Your task to perform on an android device: turn off location Image 0: 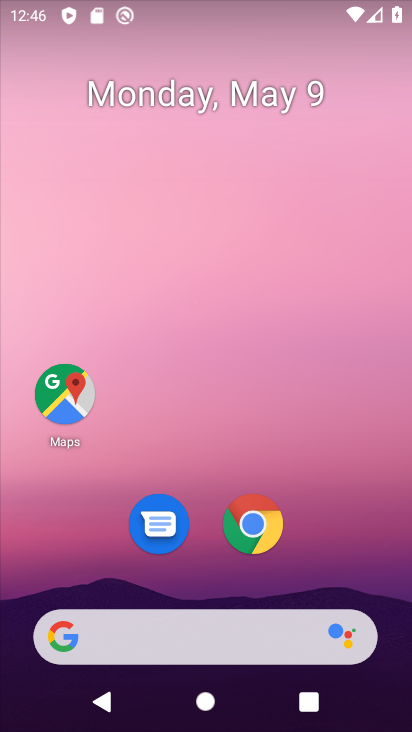
Step 0: drag from (356, 511) to (307, 25)
Your task to perform on an android device: turn off location Image 1: 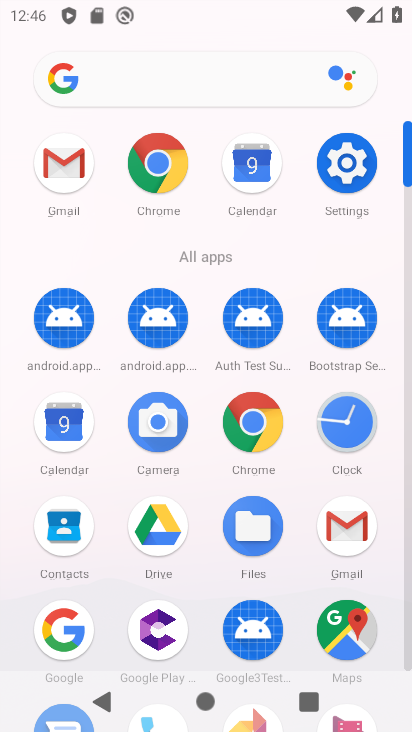
Step 1: click (346, 158)
Your task to perform on an android device: turn off location Image 2: 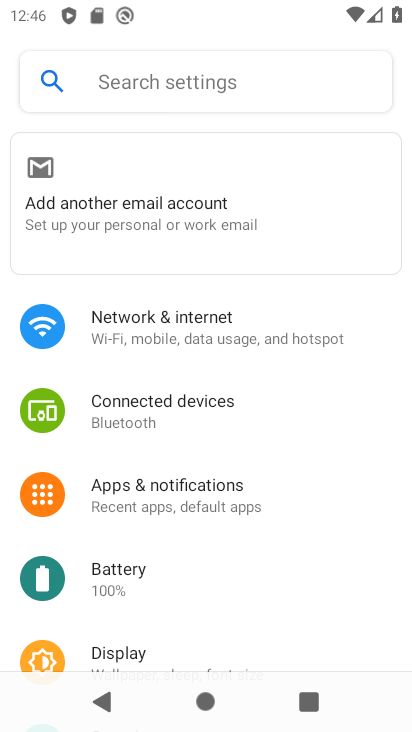
Step 2: drag from (235, 563) to (336, 10)
Your task to perform on an android device: turn off location Image 3: 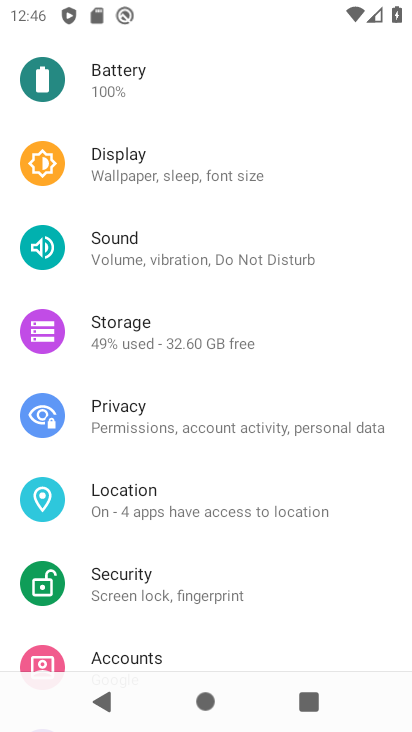
Step 3: click (264, 510)
Your task to perform on an android device: turn off location Image 4: 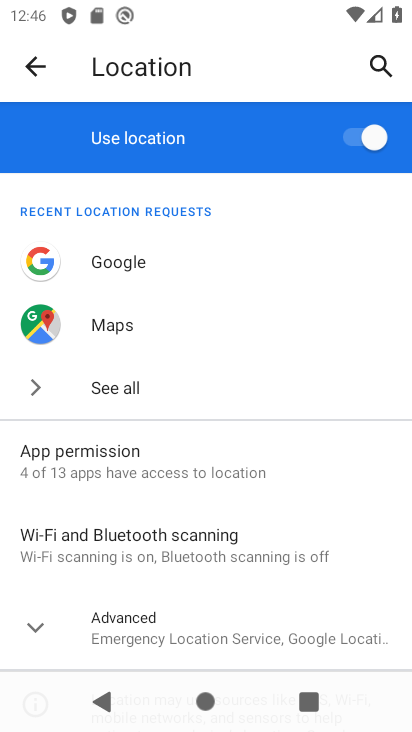
Step 4: click (356, 136)
Your task to perform on an android device: turn off location Image 5: 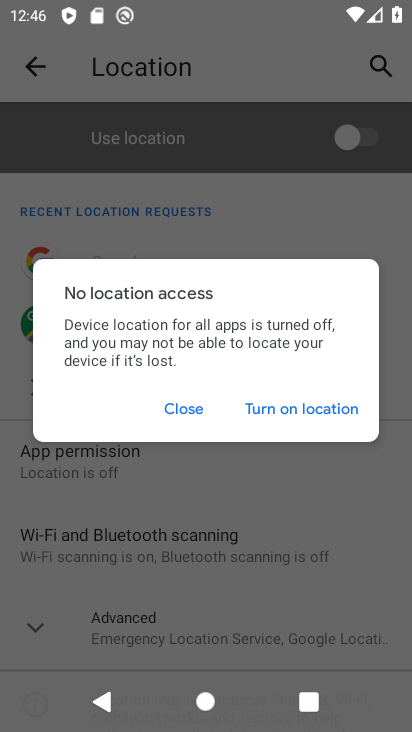
Step 5: task complete